Your task to perform on an android device: Go to privacy settings Image 0: 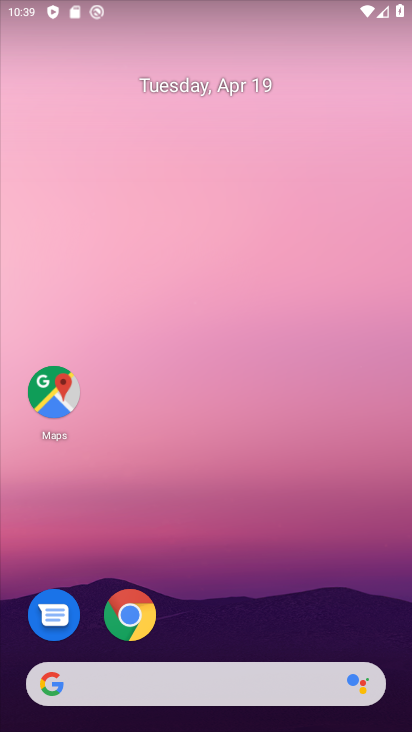
Step 0: click (129, 618)
Your task to perform on an android device: Go to privacy settings Image 1: 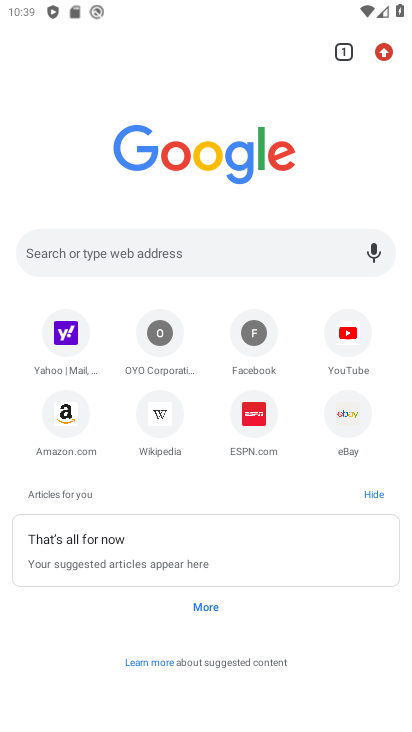
Step 1: click (383, 53)
Your task to perform on an android device: Go to privacy settings Image 2: 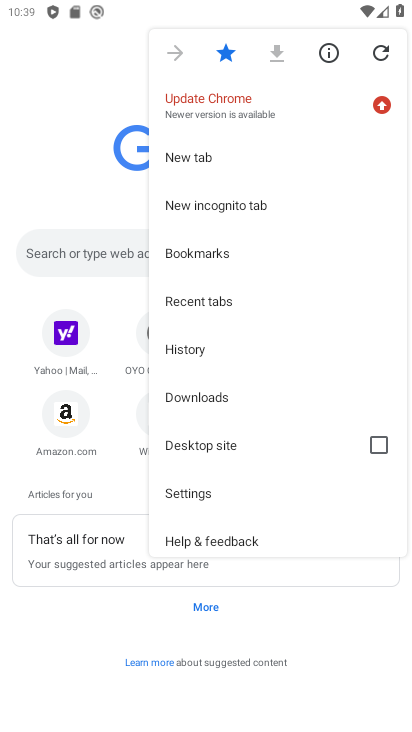
Step 2: click (192, 490)
Your task to perform on an android device: Go to privacy settings Image 3: 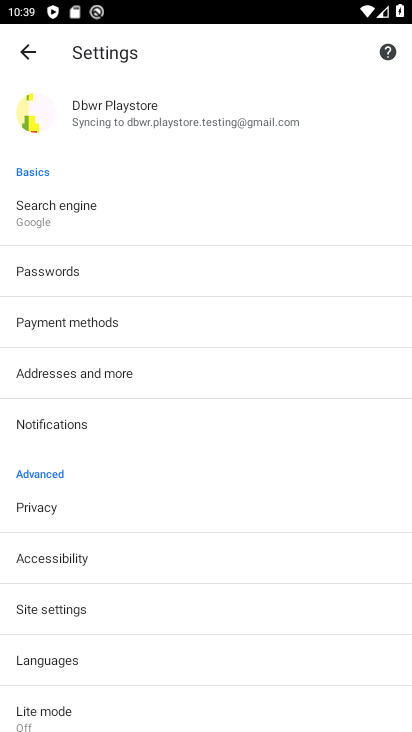
Step 3: click (58, 513)
Your task to perform on an android device: Go to privacy settings Image 4: 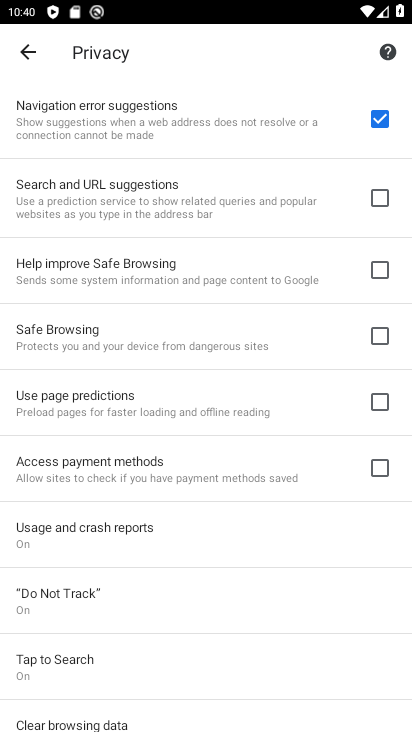
Step 4: task complete